Your task to perform on an android device: Go to Reddit.com Image 0: 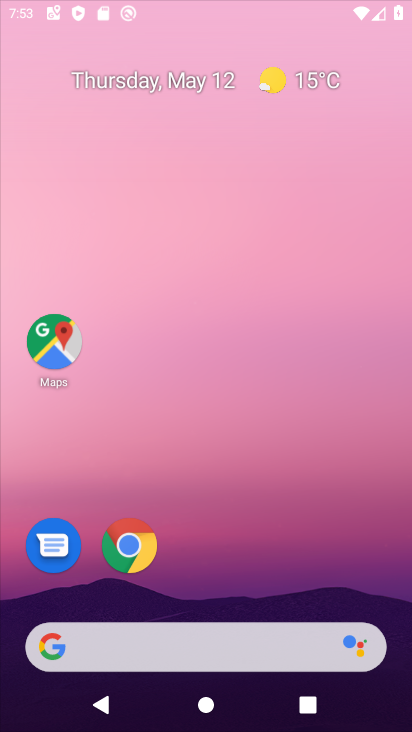
Step 0: press home button
Your task to perform on an android device: Go to Reddit.com Image 1: 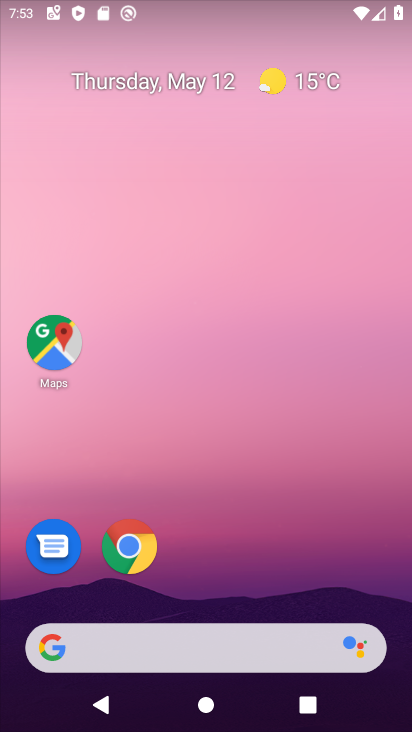
Step 1: click (117, 566)
Your task to perform on an android device: Go to Reddit.com Image 2: 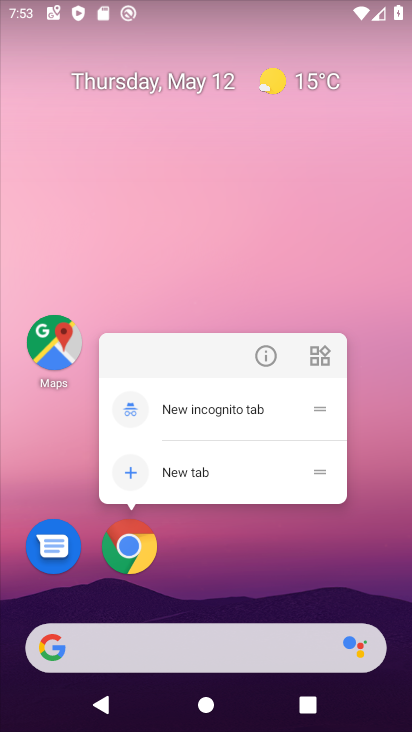
Step 2: click (138, 562)
Your task to perform on an android device: Go to Reddit.com Image 3: 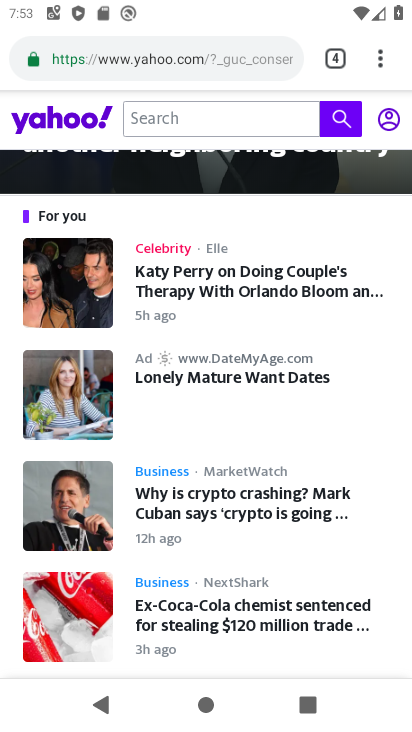
Step 3: drag from (378, 63) to (264, 113)
Your task to perform on an android device: Go to Reddit.com Image 4: 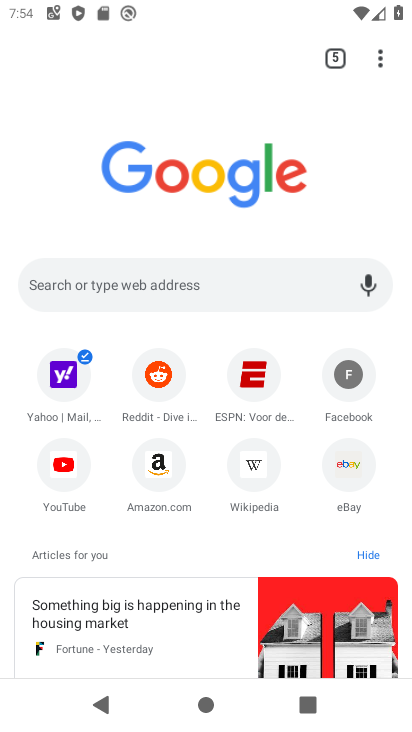
Step 4: click (83, 286)
Your task to perform on an android device: Go to Reddit.com Image 5: 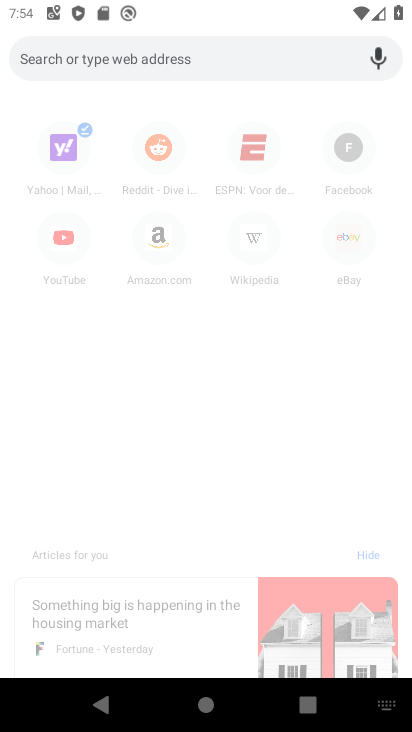
Step 5: type "reddit.com"
Your task to perform on an android device: Go to Reddit.com Image 6: 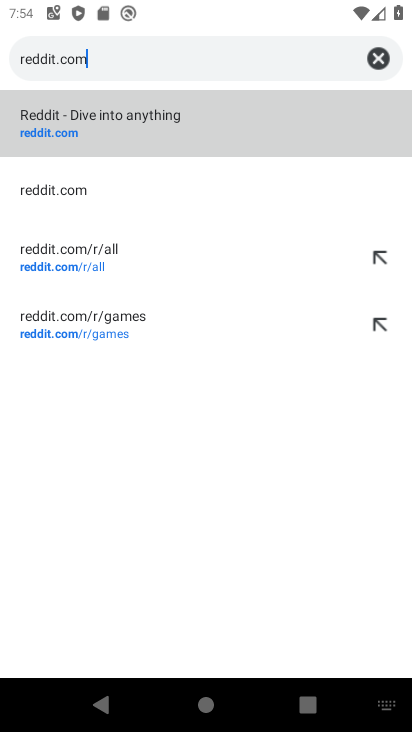
Step 6: click (180, 134)
Your task to perform on an android device: Go to Reddit.com Image 7: 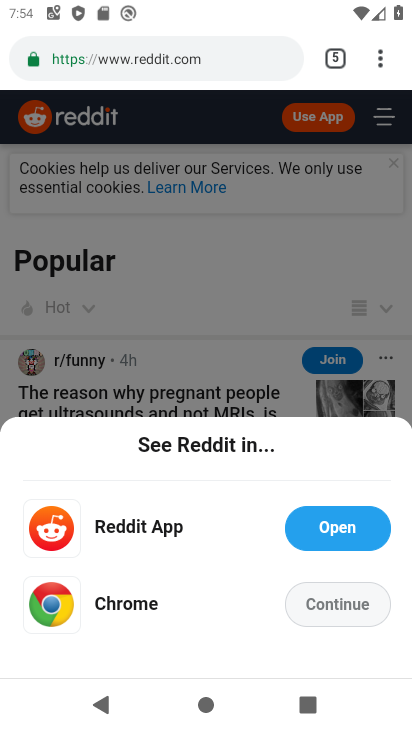
Step 7: task complete